Your task to perform on an android device: Clear all items from cart on costco.com. Add "lg ultragear" to the cart on costco.com Image 0: 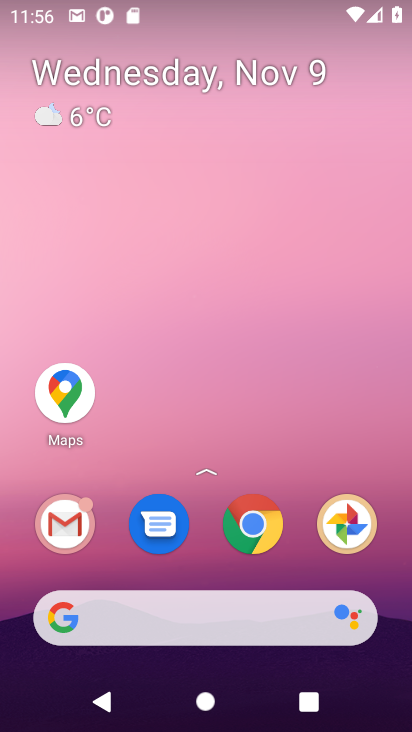
Step 0: click (259, 526)
Your task to perform on an android device: Clear all items from cart on costco.com. Add "lg ultragear" to the cart on costco.com Image 1: 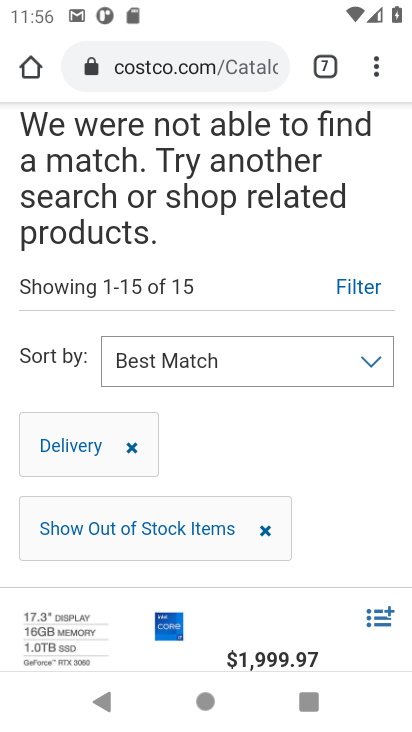
Step 1: drag from (358, 182) to (353, 485)
Your task to perform on an android device: Clear all items from cart on costco.com. Add "lg ultragear" to the cart on costco.com Image 2: 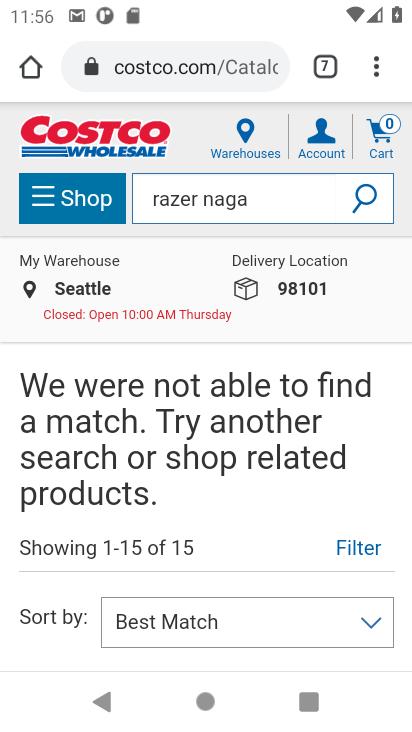
Step 2: click (286, 186)
Your task to perform on an android device: Clear all items from cart on costco.com. Add "lg ultragear" to the cart on costco.com Image 3: 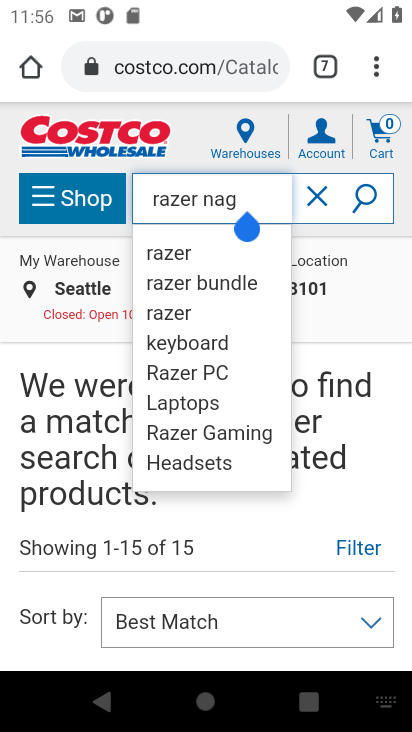
Step 3: click (319, 197)
Your task to perform on an android device: Clear all items from cart on costco.com. Add "lg ultragear" to the cart on costco.com Image 4: 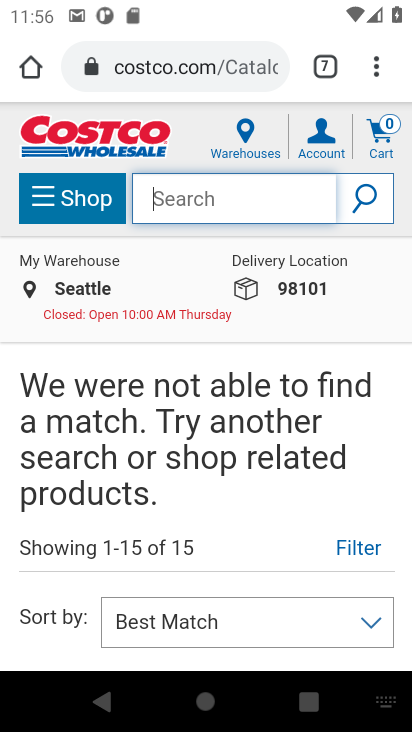
Step 4: type "lg ultragear"
Your task to perform on an android device: Clear all items from cart on costco.com. Add "lg ultragear" to the cart on costco.com Image 5: 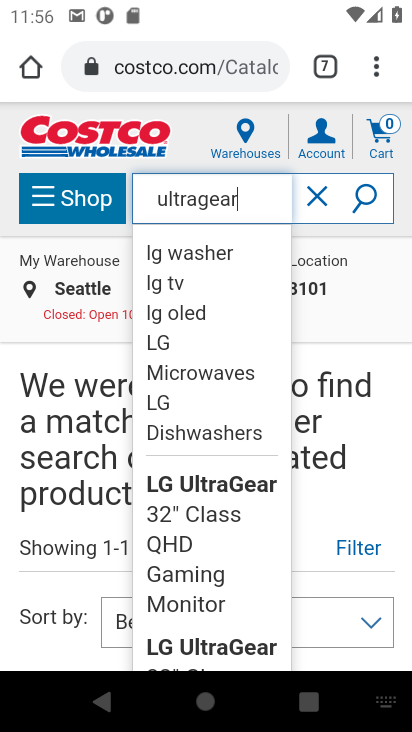
Step 5: click (196, 490)
Your task to perform on an android device: Clear all items from cart on costco.com. Add "lg ultragear" to the cart on costco.com Image 6: 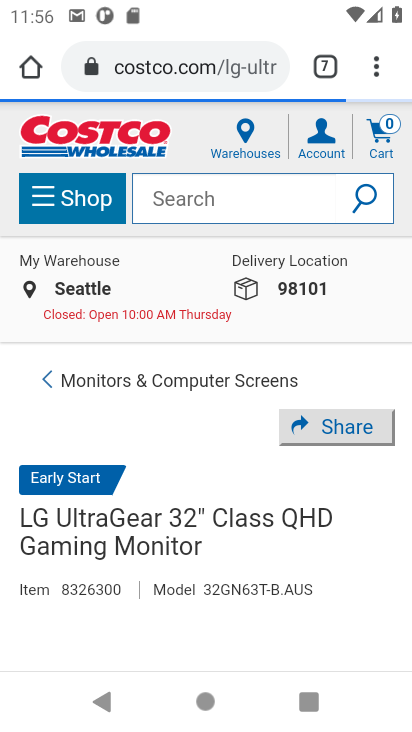
Step 6: drag from (196, 490) to (162, 226)
Your task to perform on an android device: Clear all items from cart on costco.com. Add "lg ultragear" to the cart on costco.com Image 7: 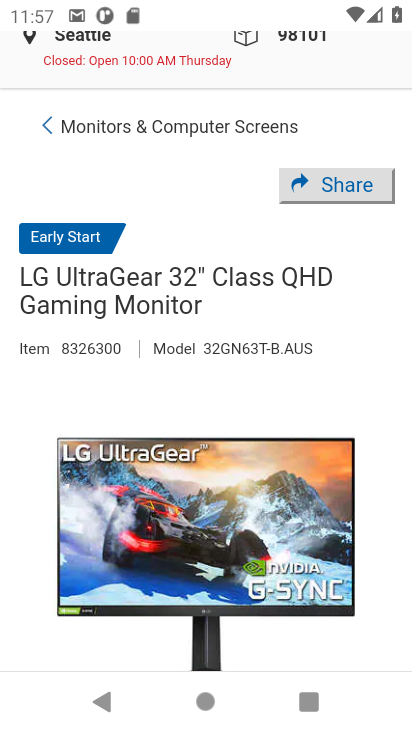
Step 7: drag from (189, 563) to (319, 126)
Your task to perform on an android device: Clear all items from cart on costco.com. Add "lg ultragear" to the cart on costco.com Image 8: 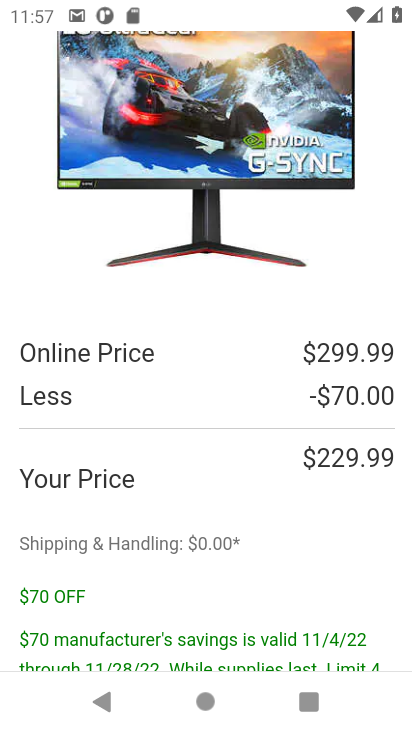
Step 8: drag from (343, 497) to (408, 56)
Your task to perform on an android device: Clear all items from cart on costco.com. Add "lg ultragear" to the cart on costco.com Image 9: 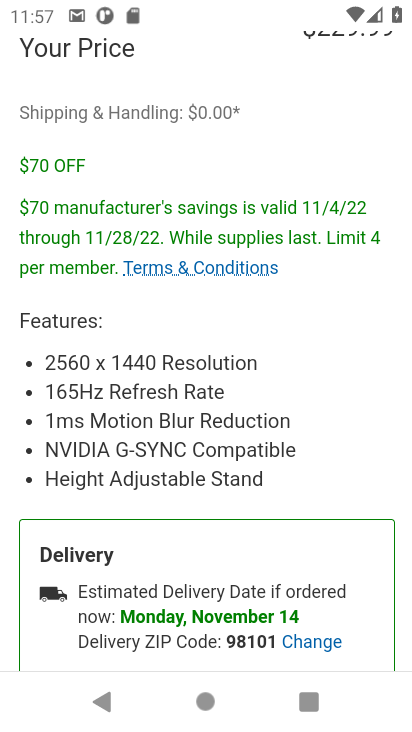
Step 9: drag from (281, 560) to (371, 30)
Your task to perform on an android device: Clear all items from cart on costco.com. Add "lg ultragear" to the cart on costco.com Image 10: 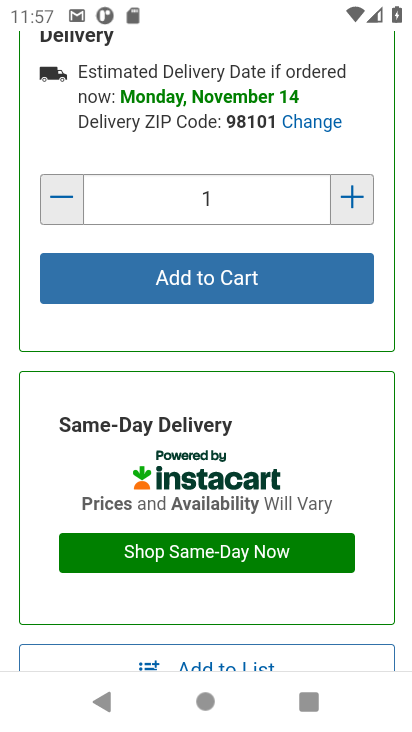
Step 10: click (229, 282)
Your task to perform on an android device: Clear all items from cart on costco.com. Add "lg ultragear" to the cart on costco.com Image 11: 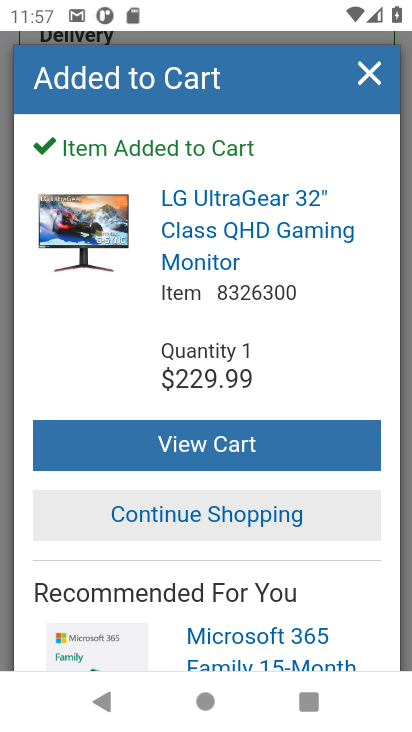
Step 11: task complete